Your task to perform on an android device: manage bookmarks in the chrome app Image 0: 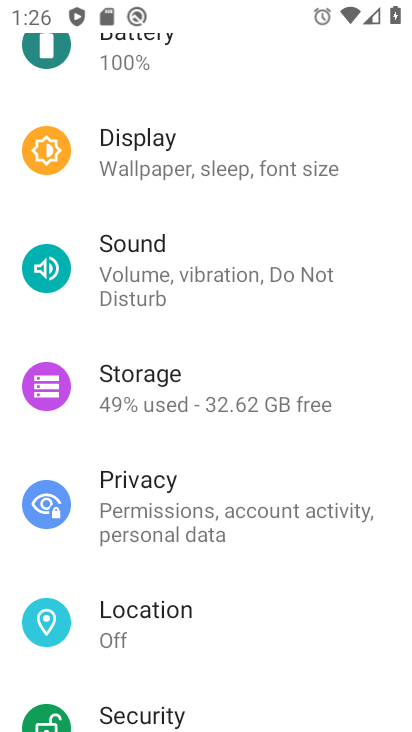
Step 0: press home button
Your task to perform on an android device: manage bookmarks in the chrome app Image 1: 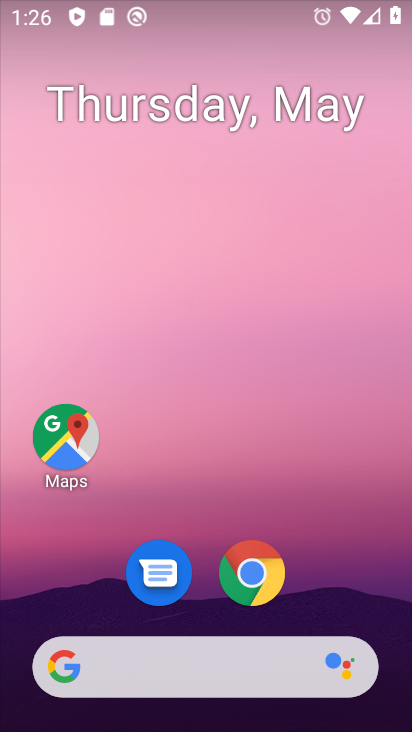
Step 1: click (263, 569)
Your task to perform on an android device: manage bookmarks in the chrome app Image 2: 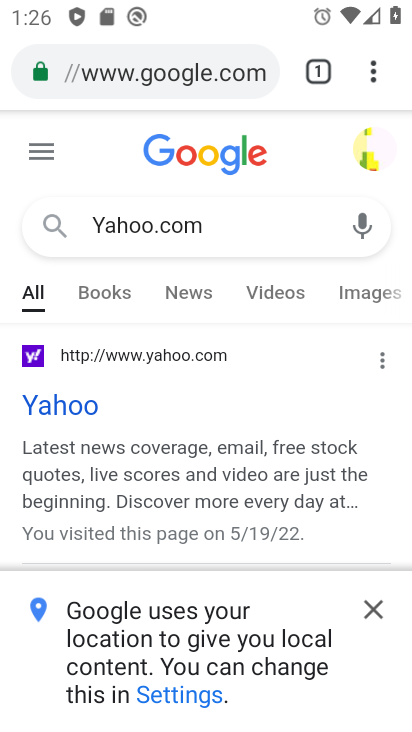
Step 2: click (373, 65)
Your task to perform on an android device: manage bookmarks in the chrome app Image 3: 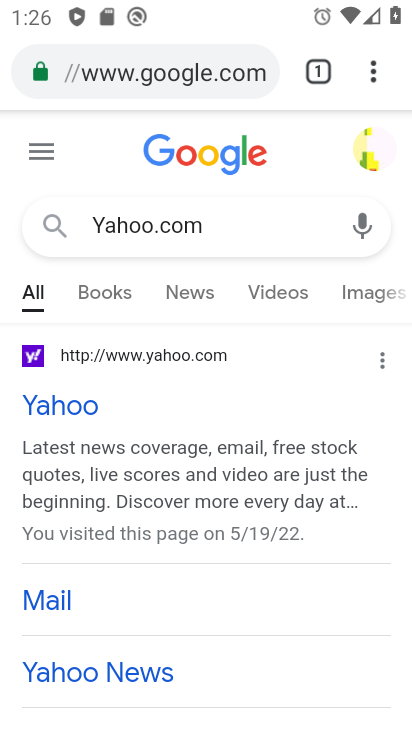
Step 3: click (372, 71)
Your task to perform on an android device: manage bookmarks in the chrome app Image 4: 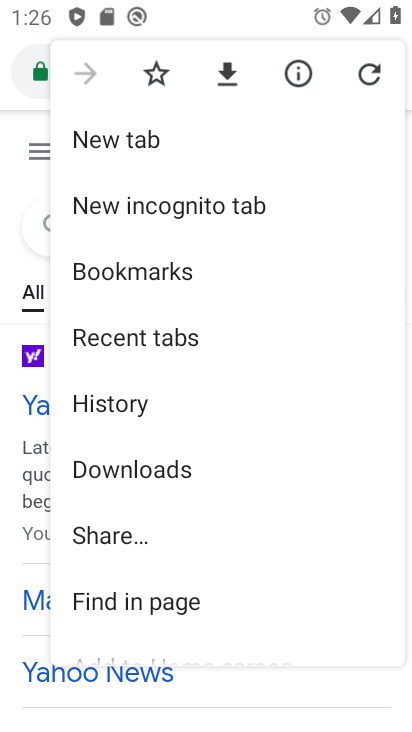
Step 4: click (149, 266)
Your task to perform on an android device: manage bookmarks in the chrome app Image 5: 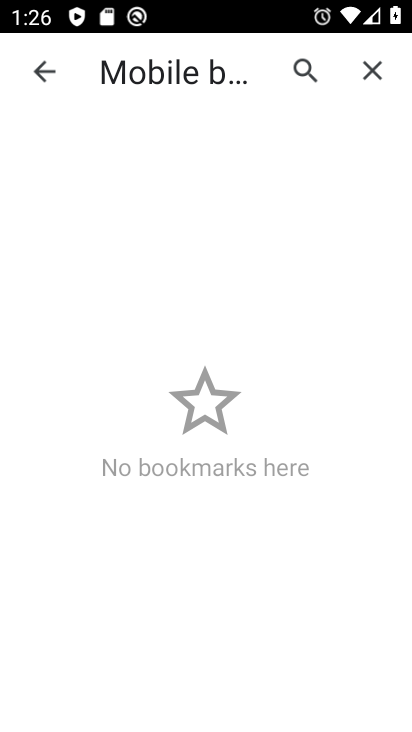
Step 5: task complete